Your task to perform on an android device: turn vacation reply on in the gmail app Image 0: 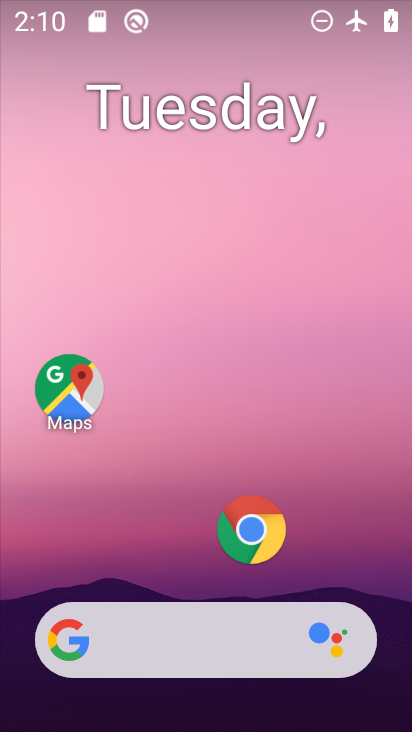
Step 0: drag from (224, 677) to (282, 138)
Your task to perform on an android device: turn vacation reply on in the gmail app Image 1: 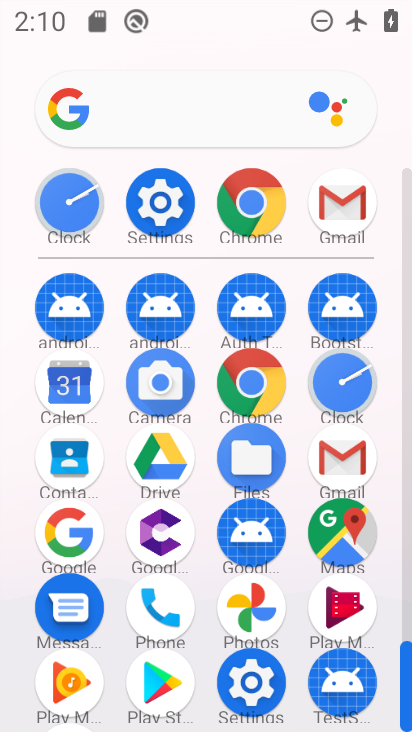
Step 1: click (340, 202)
Your task to perform on an android device: turn vacation reply on in the gmail app Image 2: 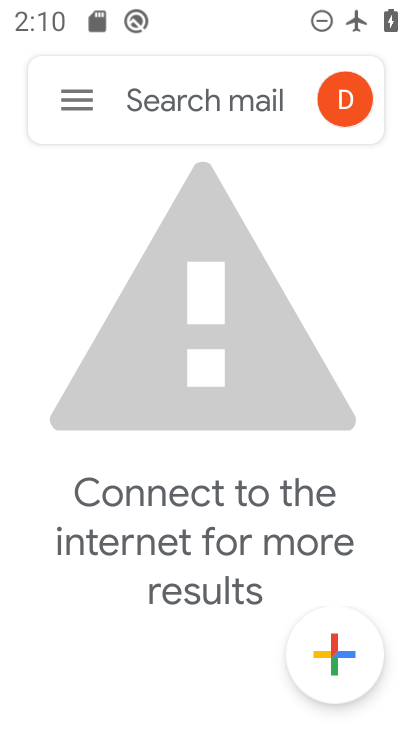
Step 2: click (59, 94)
Your task to perform on an android device: turn vacation reply on in the gmail app Image 3: 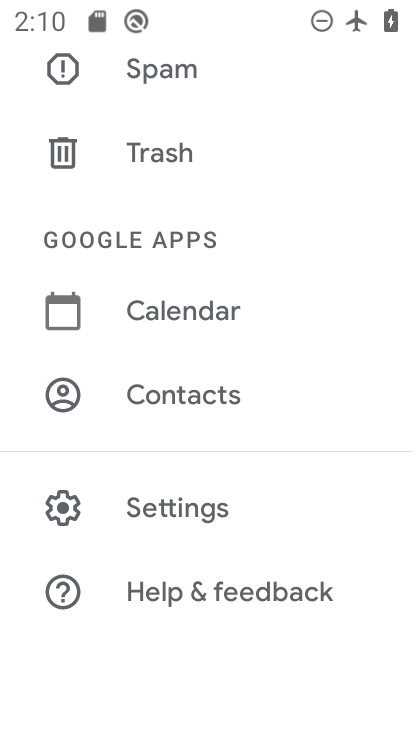
Step 3: click (163, 503)
Your task to perform on an android device: turn vacation reply on in the gmail app Image 4: 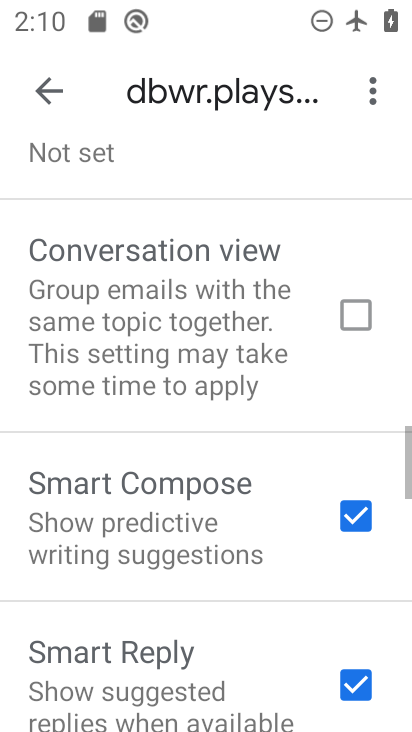
Step 4: click (163, 503)
Your task to perform on an android device: turn vacation reply on in the gmail app Image 5: 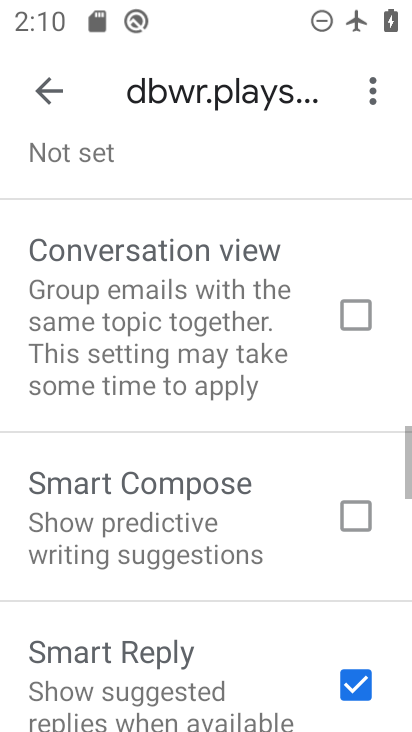
Step 5: drag from (170, 522) to (158, 352)
Your task to perform on an android device: turn vacation reply on in the gmail app Image 6: 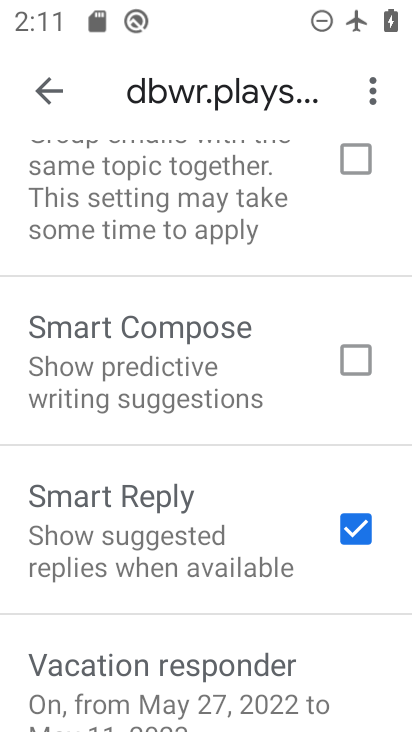
Step 6: click (92, 688)
Your task to perform on an android device: turn vacation reply on in the gmail app Image 7: 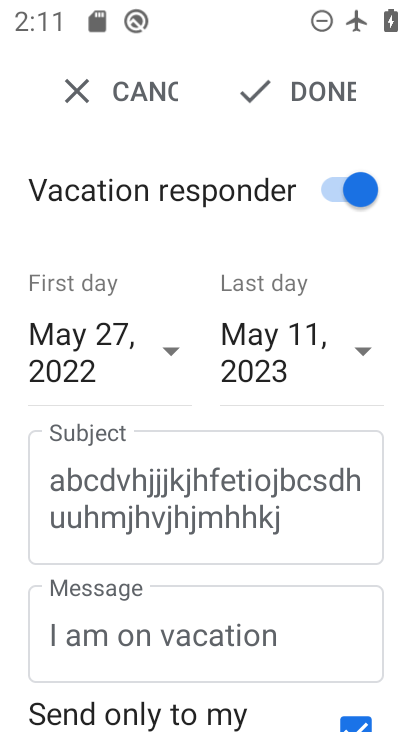
Step 7: task complete